Your task to perform on an android device: Go to Reddit.com Image 0: 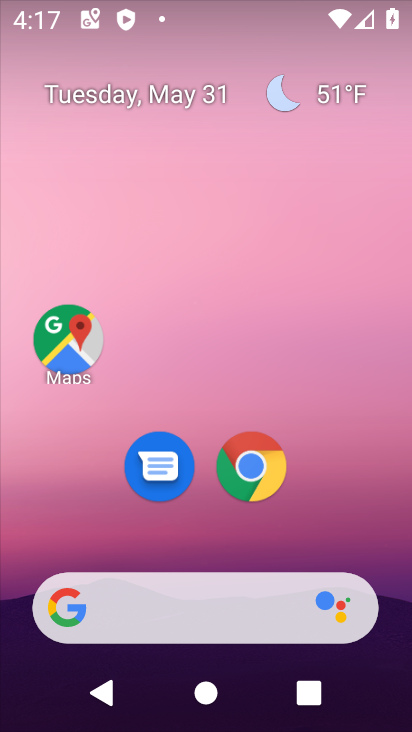
Step 0: click (250, 462)
Your task to perform on an android device: Go to Reddit.com Image 1: 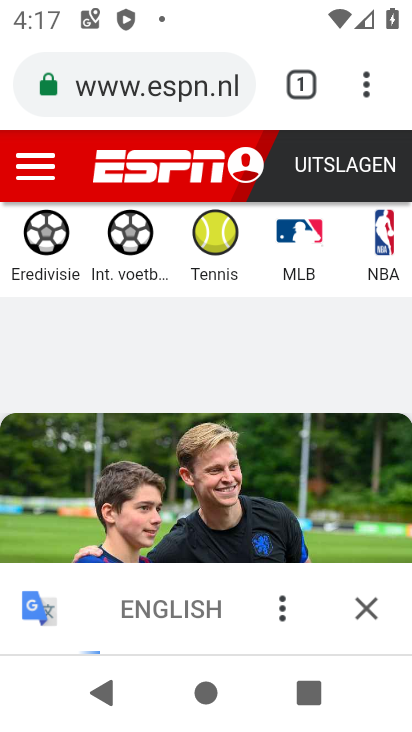
Step 1: click (313, 71)
Your task to perform on an android device: Go to Reddit.com Image 2: 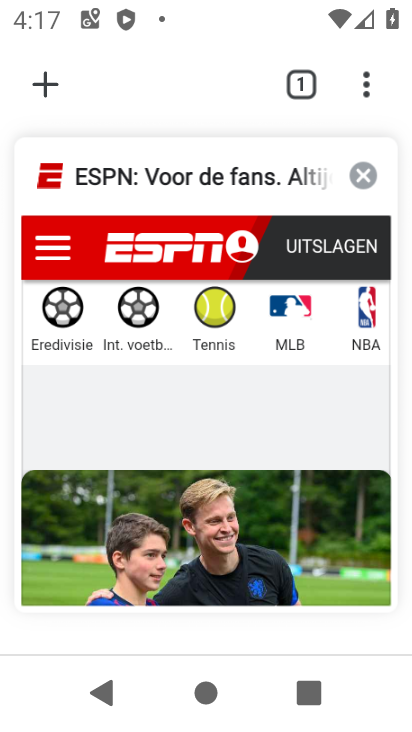
Step 2: click (357, 174)
Your task to perform on an android device: Go to Reddit.com Image 3: 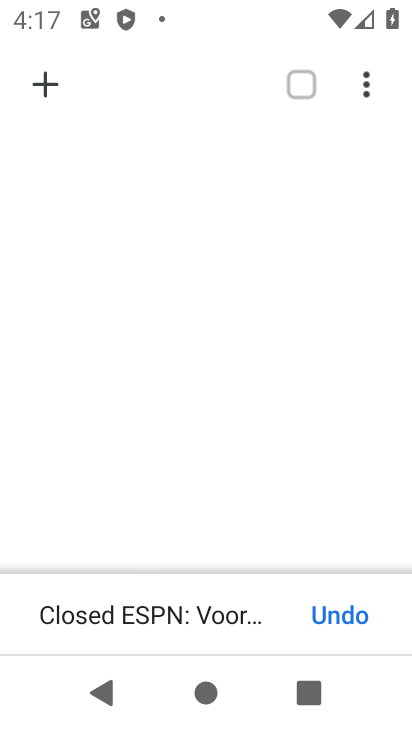
Step 3: click (41, 86)
Your task to perform on an android device: Go to Reddit.com Image 4: 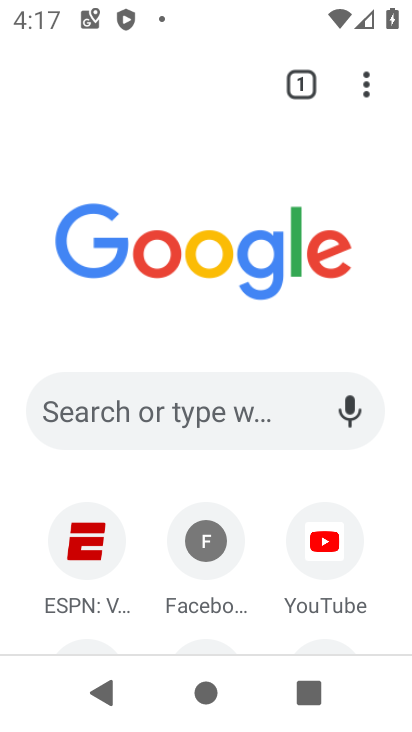
Step 4: click (158, 393)
Your task to perform on an android device: Go to Reddit.com Image 5: 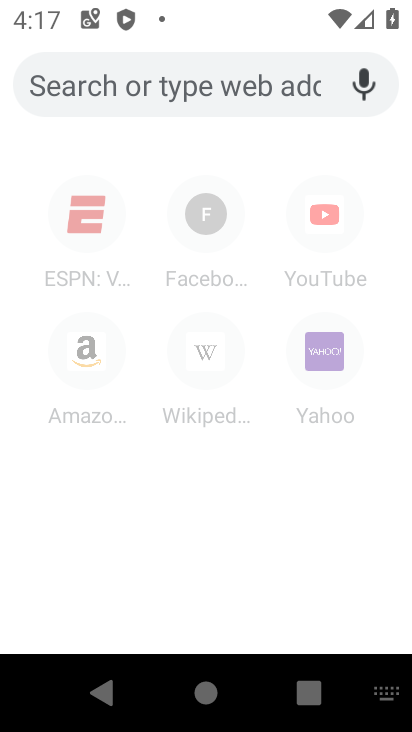
Step 5: type "reddit"
Your task to perform on an android device: Go to Reddit.com Image 6: 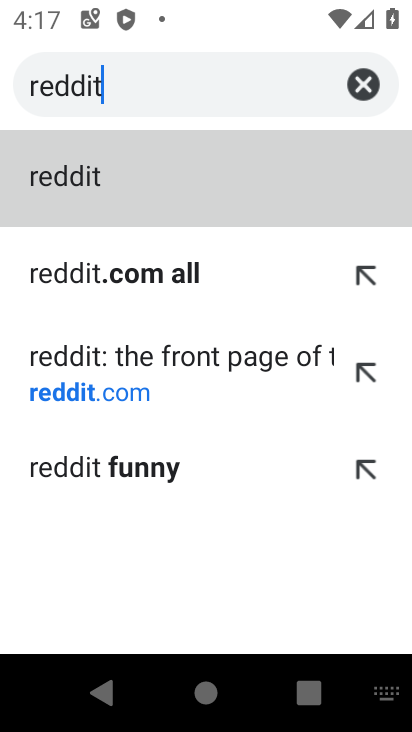
Step 6: click (212, 380)
Your task to perform on an android device: Go to Reddit.com Image 7: 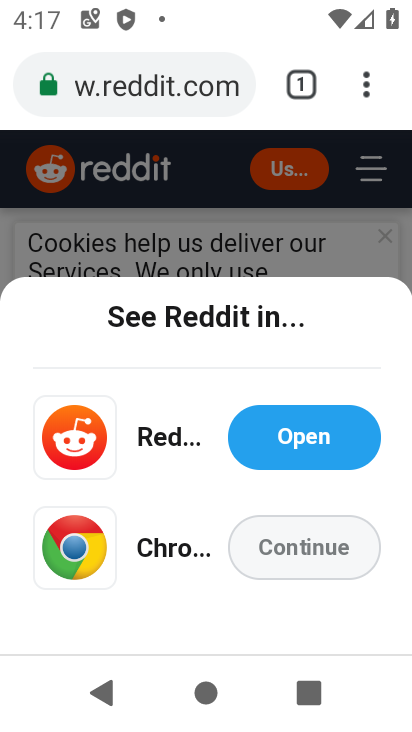
Step 7: drag from (232, 612) to (255, 234)
Your task to perform on an android device: Go to Reddit.com Image 8: 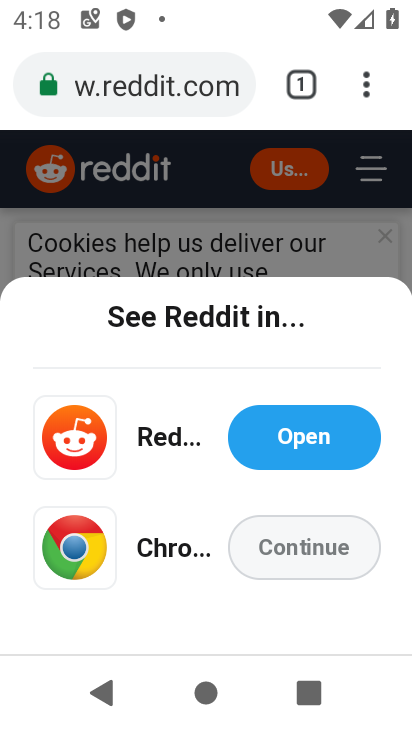
Step 8: click (316, 526)
Your task to perform on an android device: Go to Reddit.com Image 9: 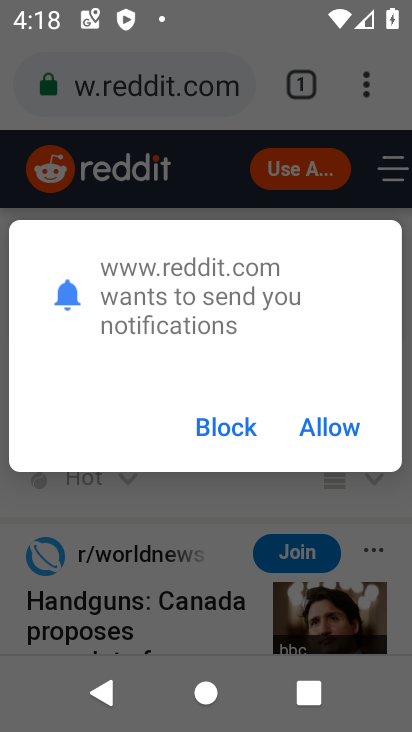
Step 9: drag from (224, 545) to (233, 215)
Your task to perform on an android device: Go to Reddit.com Image 10: 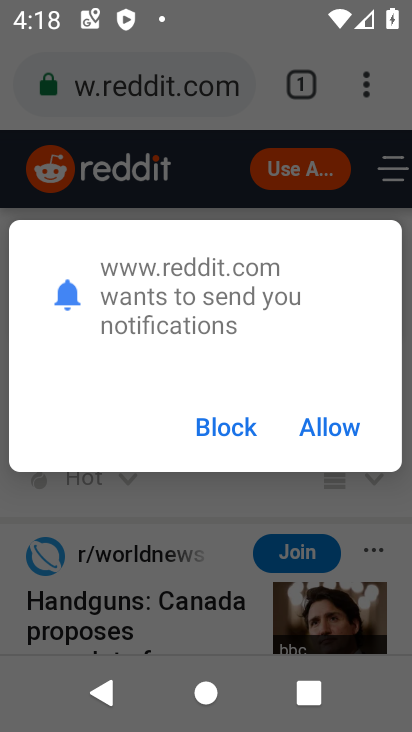
Step 10: click (221, 428)
Your task to perform on an android device: Go to Reddit.com Image 11: 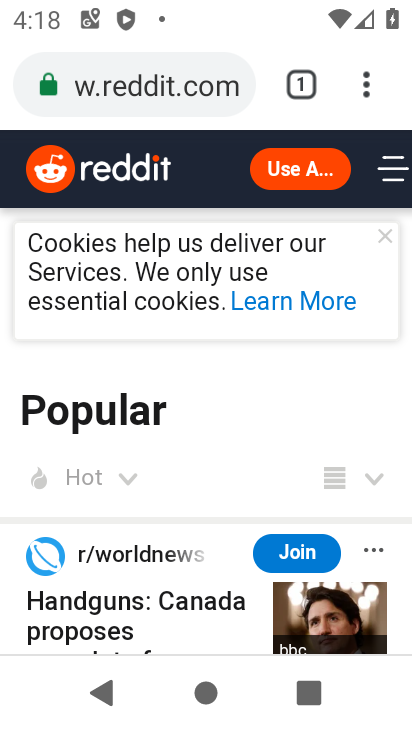
Step 11: task complete